Your task to perform on an android device: all mails in gmail Image 0: 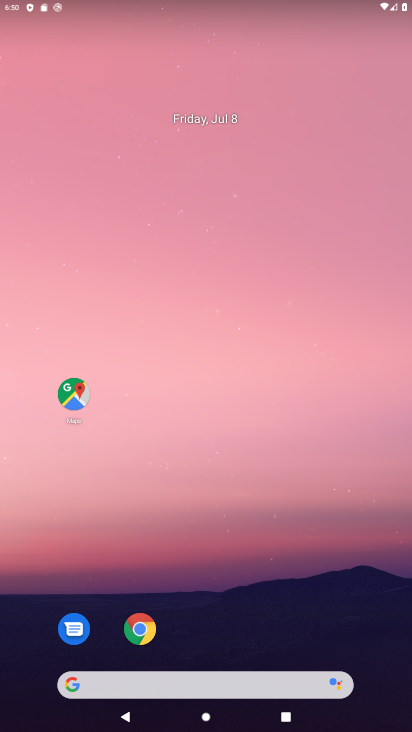
Step 0: drag from (316, 621) to (284, 0)
Your task to perform on an android device: all mails in gmail Image 1: 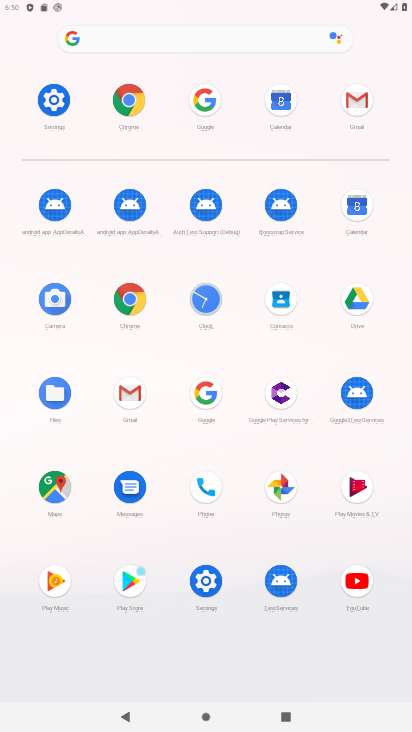
Step 1: click (348, 112)
Your task to perform on an android device: all mails in gmail Image 2: 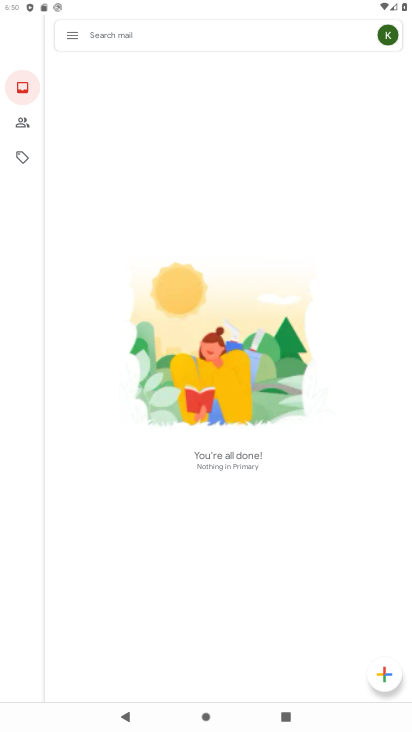
Step 2: click (72, 39)
Your task to perform on an android device: all mails in gmail Image 3: 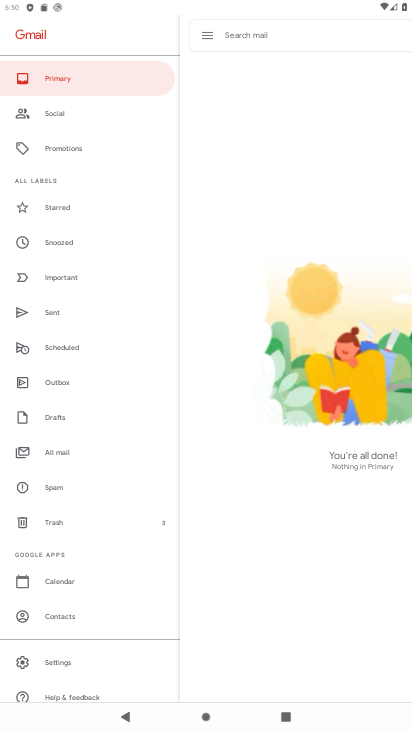
Step 3: click (51, 447)
Your task to perform on an android device: all mails in gmail Image 4: 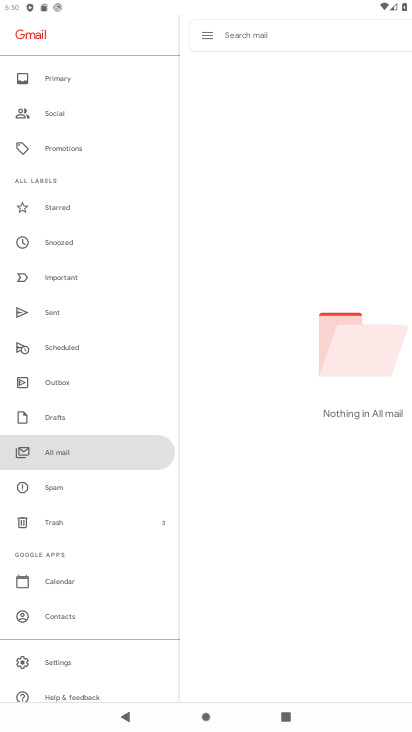
Step 4: task complete